Your task to perform on an android device: Show me popular games on the Play Store Image 0: 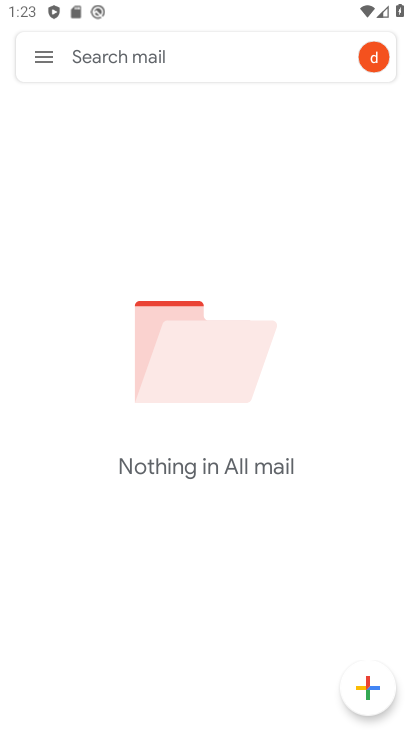
Step 0: press home button
Your task to perform on an android device: Show me popular games on the Play Store Image 1: 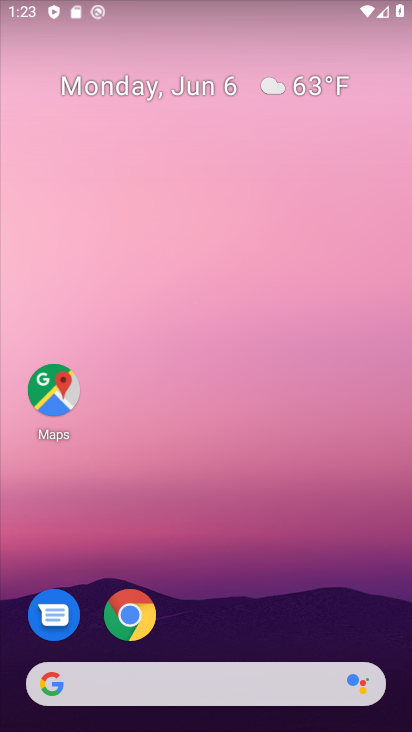
Step 1: drag from (158, 679) to (232, 263)
Your task to perform on an android device: Show me popular games on the Play Store Image 2: 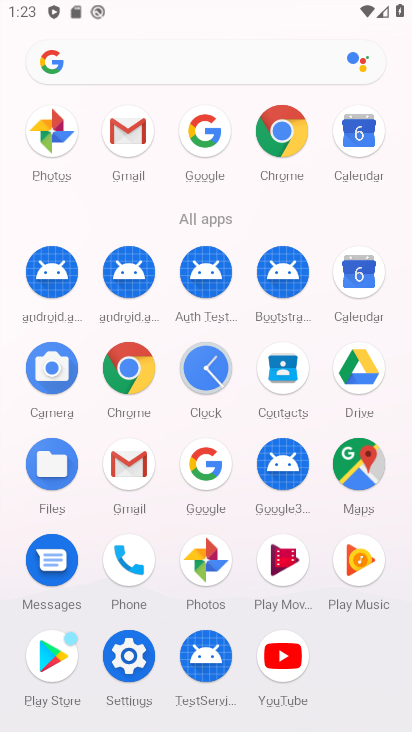
Step 2: click (53, 672)
Your task to perform on an android device: Show me popular games on the Play Store Image 3: 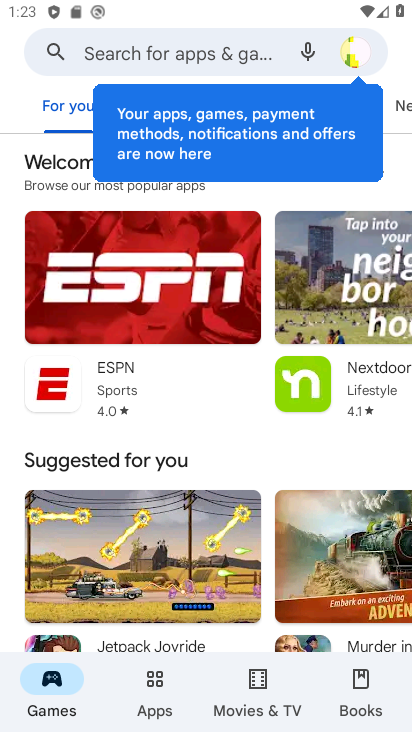
Step 3: drag from (160, 539) to (274, 99)
Your task to perform on an android device: Show me popular games on the Play Store Image 4: 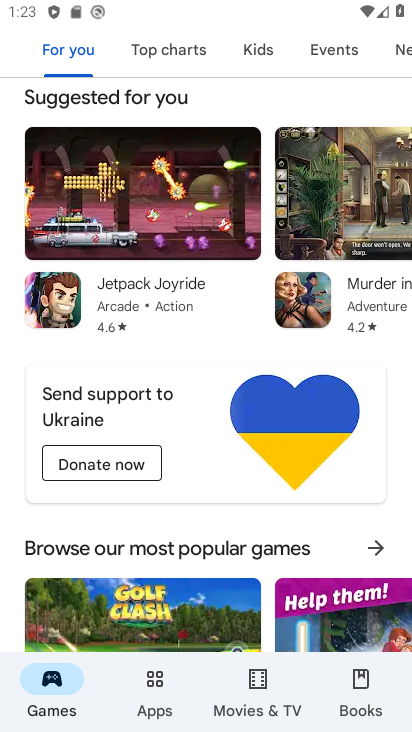
Step 4: drag from (157, 527) to (240, 204)
Your task to perform on an android device: Show me popular games on the Play Store Image 5: 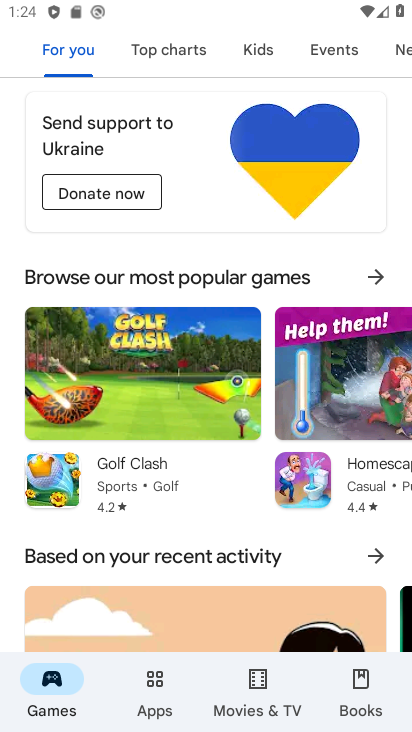
Step 5: click (392, 289)
Your task to perform on an android device: Show me popular games on the Play Store Image 6: 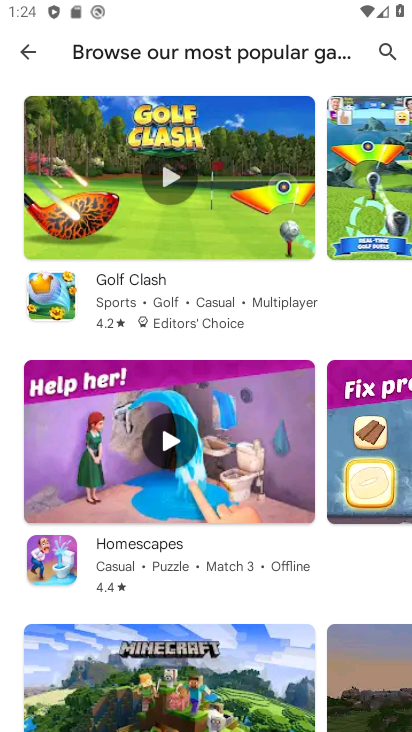
Step 6: task complete